Your task to perform on an android device: Open wifi settings Image 0: 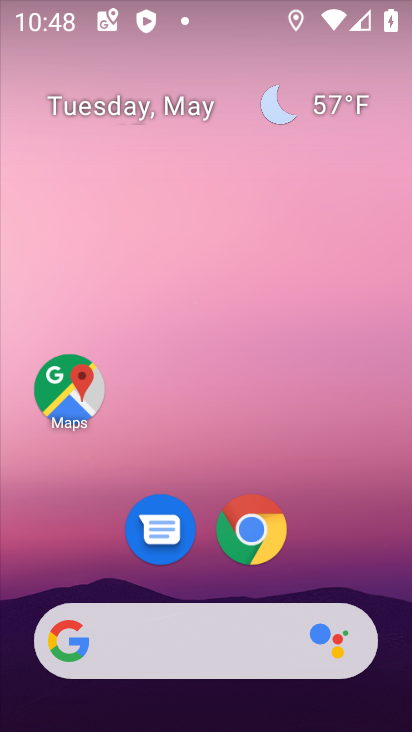
Step 0: drag from (227, 25) to (242, 692)
Your task to perform on an android device: Open wifi settings Image 1: 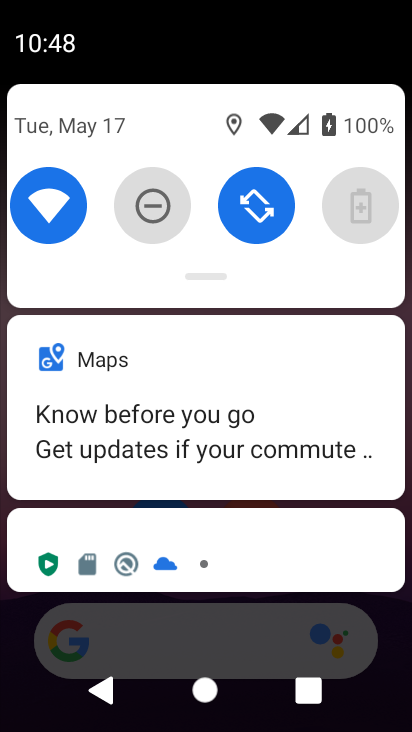
Step 1: click (68, 206)
Your task to perform on an android device: Open wifi settings Image 2: 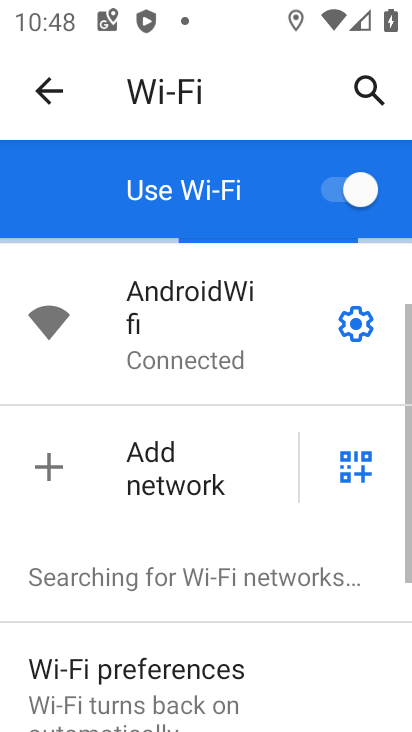
Step 2: task complete